Your task to perform on an android device: Open battery settings Image 0: 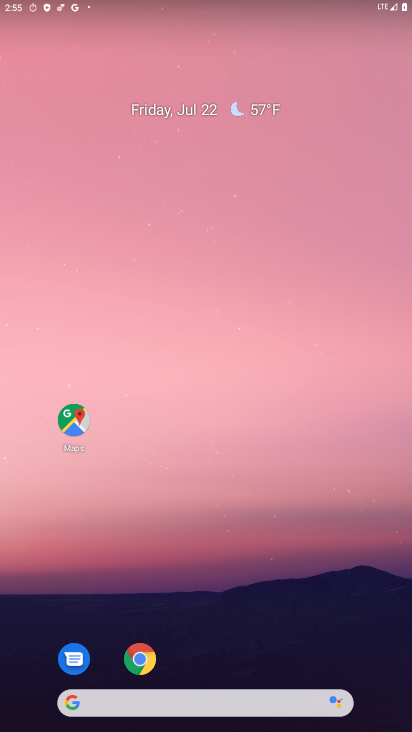
Step 0: drag from (258, 622) to (334, 3)
Your task to perform on an android device: Open battery settings Image 1: 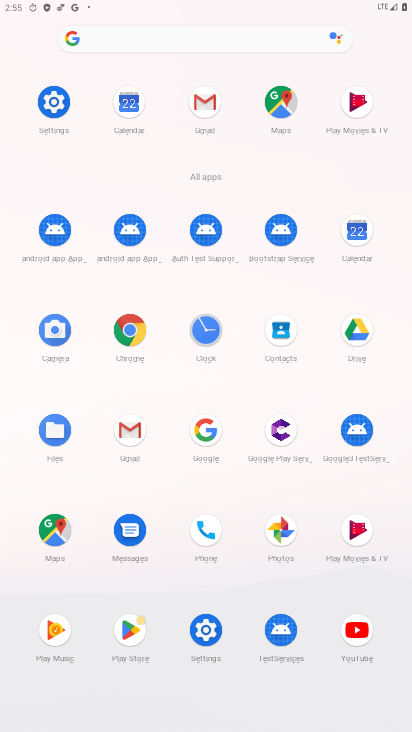
Step 1: click (49, 102)
Your task to perform on an android device: Open battery settings Image 2: 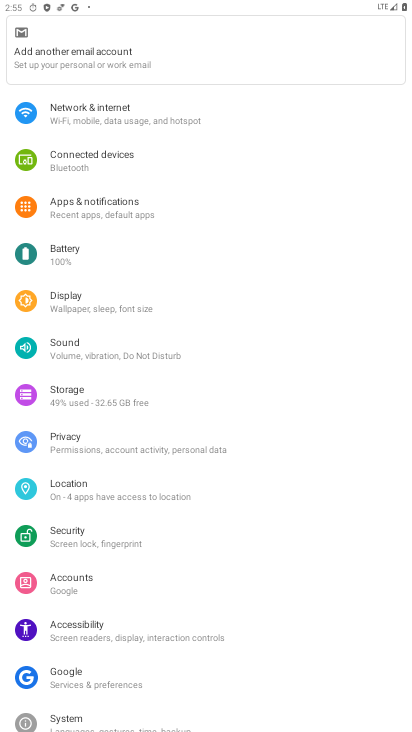
Step 2: click (84, 253)
Your task to perform on an android device: Open battery settings Image 3: 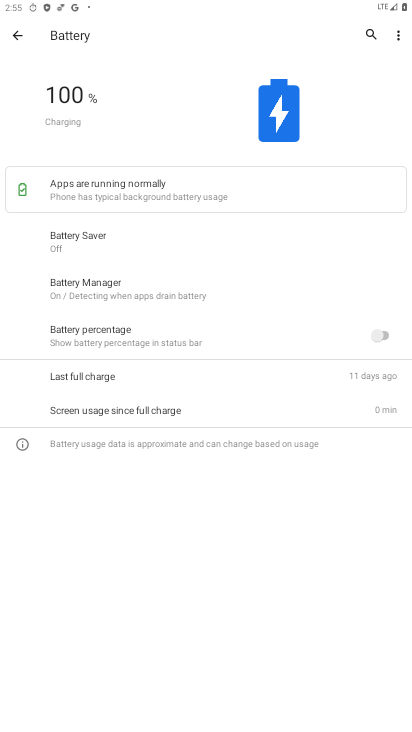
Step 3: task complete